Your task to perform on an android device: Go to privacy settings Image 0: 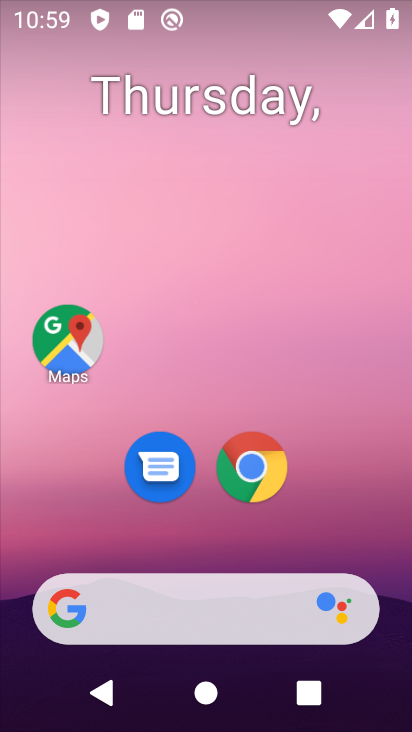
Step 0: drag from (205, 541) to (205, 171)
Your task to perform on an android device: Go to privacy settings Image 1: 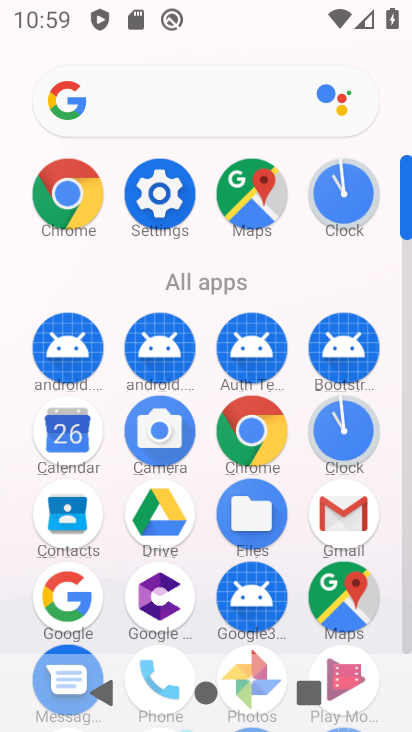
Step 1: click (166, 204)
Your task to perform on an android device: Go to privacy settings Image 2: 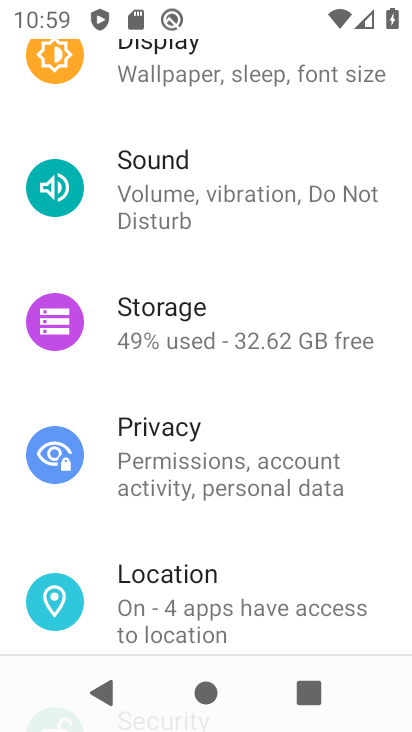
Step 2: drag from (195, 408) to (194, 150)
Your task to perform on an android device: Go to privacy settings Image 3: 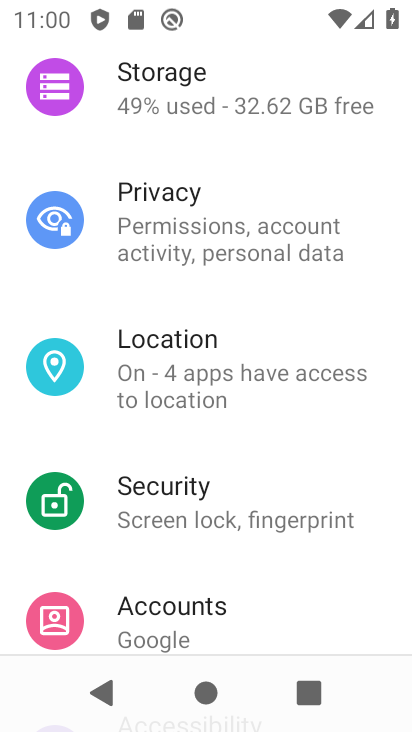
Step 3: click (208, 254)
Your task to perform on an android device: Go to privacy settings Image 4: 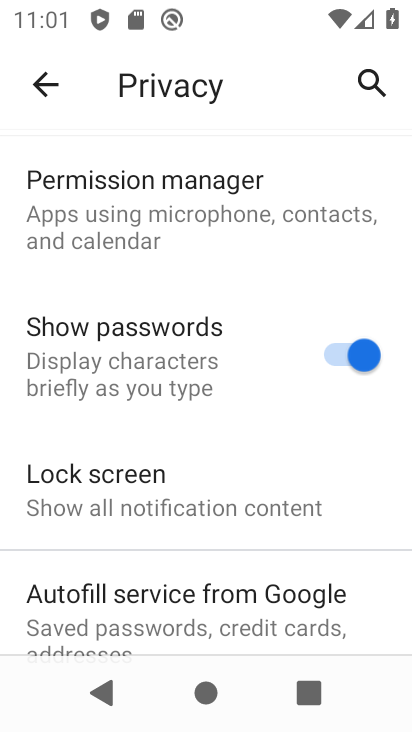
Step 4: task complete